Your task to perform on an android device: open app "Flipkart Online Shopping App" (install if not already installed) and go to login screen Image 0: 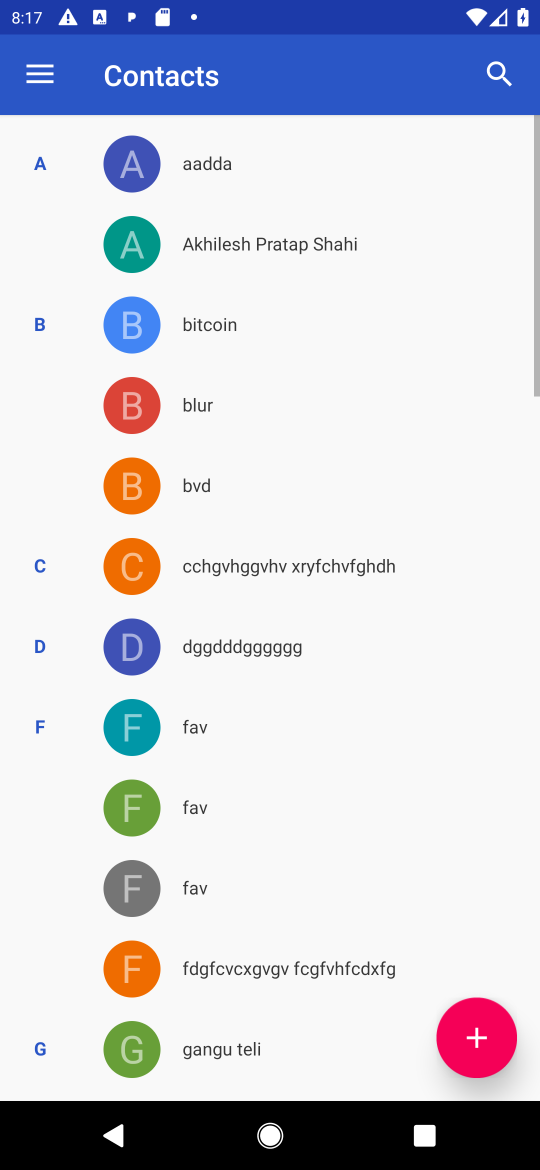
Step 0: press home button
Your task to perform on an android device: open app "Flipkart Online Shopping App" (install if not already installed) and go to login screen Image 1: 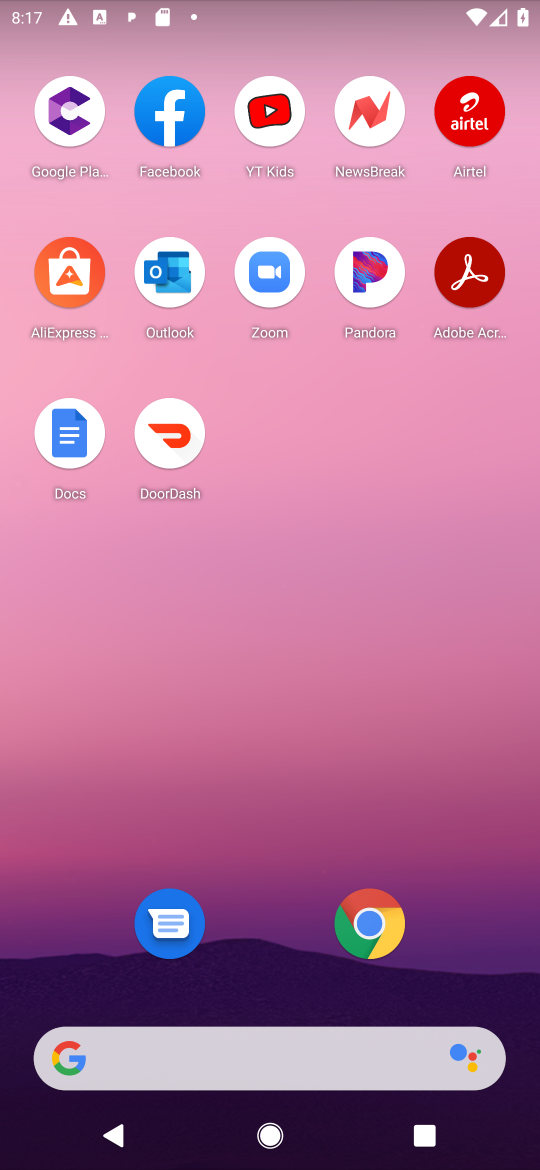
Step 1: press home button
Your task to perform on an android device: open app "Flipkart Online Shopping App" (install if not already installed) and go to login screen Image 2: 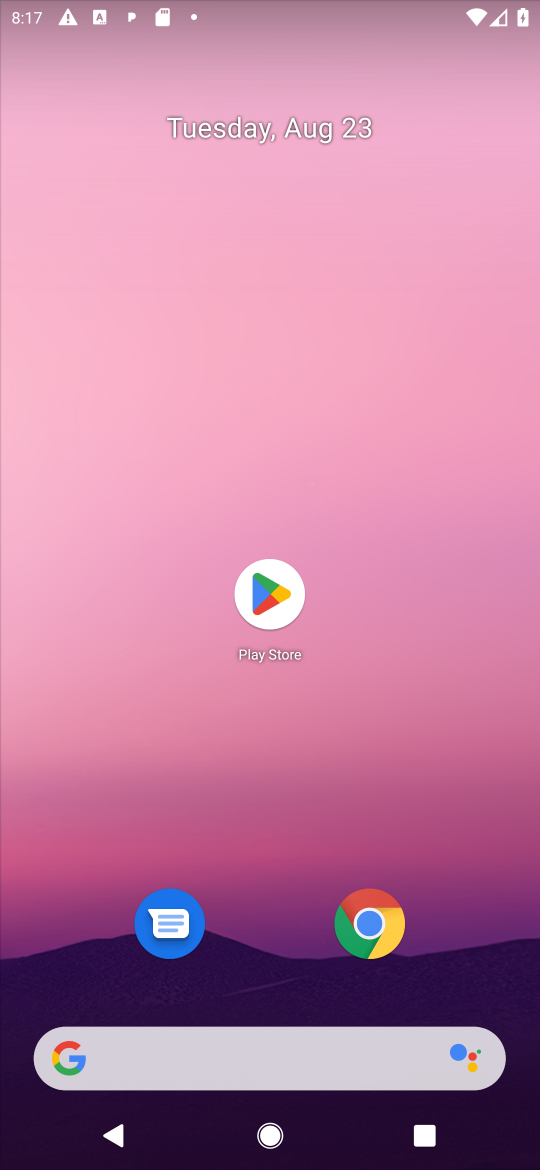
Step 2: click (267, 575)
Your task to perform on an android device: open app "Flipkart Online Shopping App" (install if not already installed) and go to login screen Image 3: 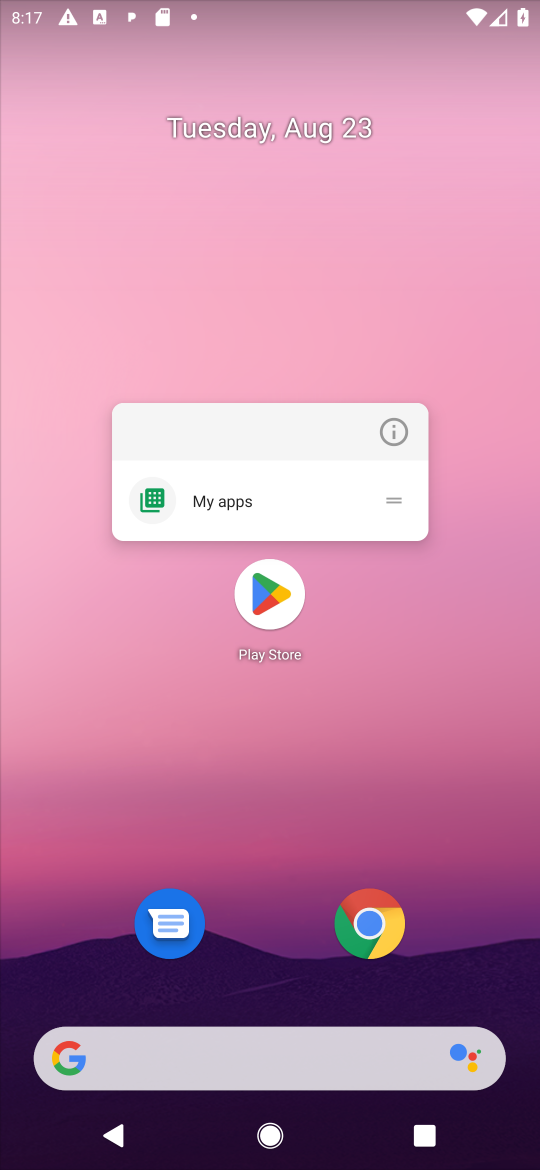
Step 3: click (267, 592)
Your task to perform on an android device: open app "Flipkart Online Shopping App" (install if not already installed) and go to login screen Image 4: 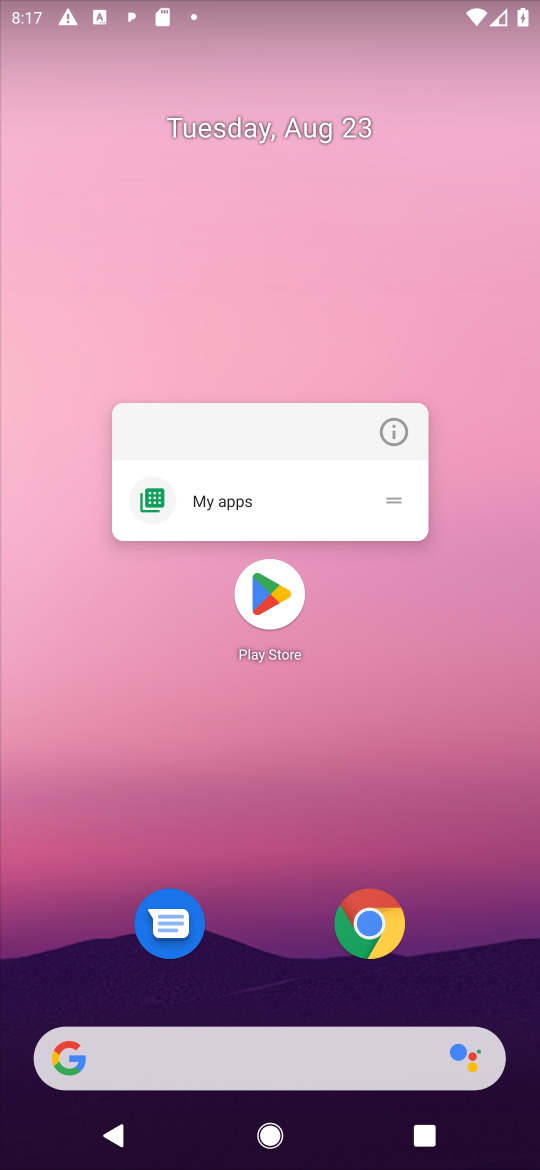
Step 4: click (267, 601)
Your task to perform on an android device: open app "Flipkart Online Shopping App" (install if not already installed) and go to login screen Image 5: 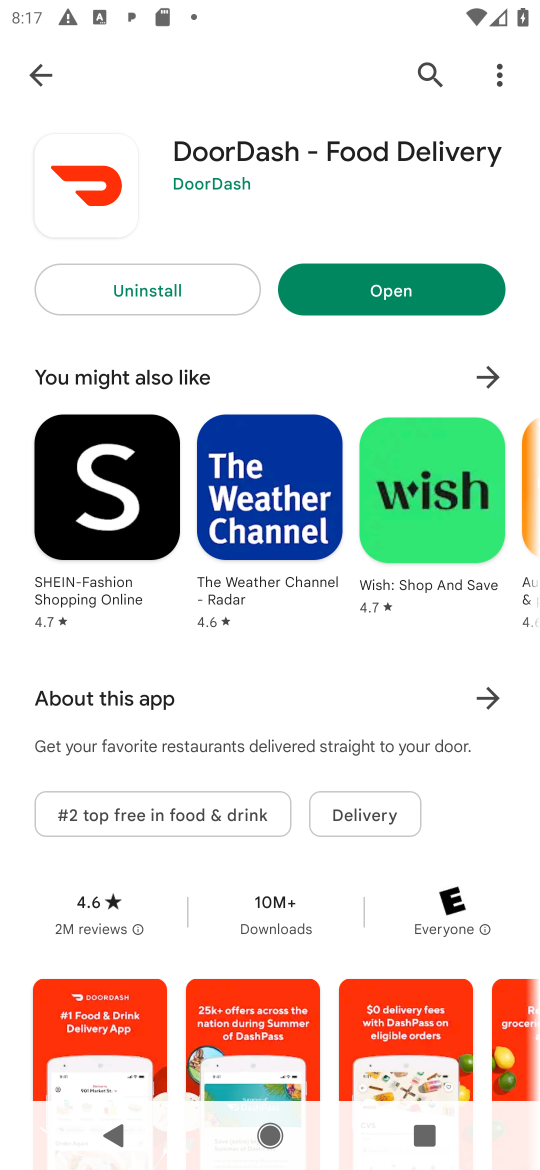
Step 5: click (435, 47)
Your task to perform on an android device: open app "Flipkart Online Shopping App" (install if not already installed) and go to login screen Image 6: 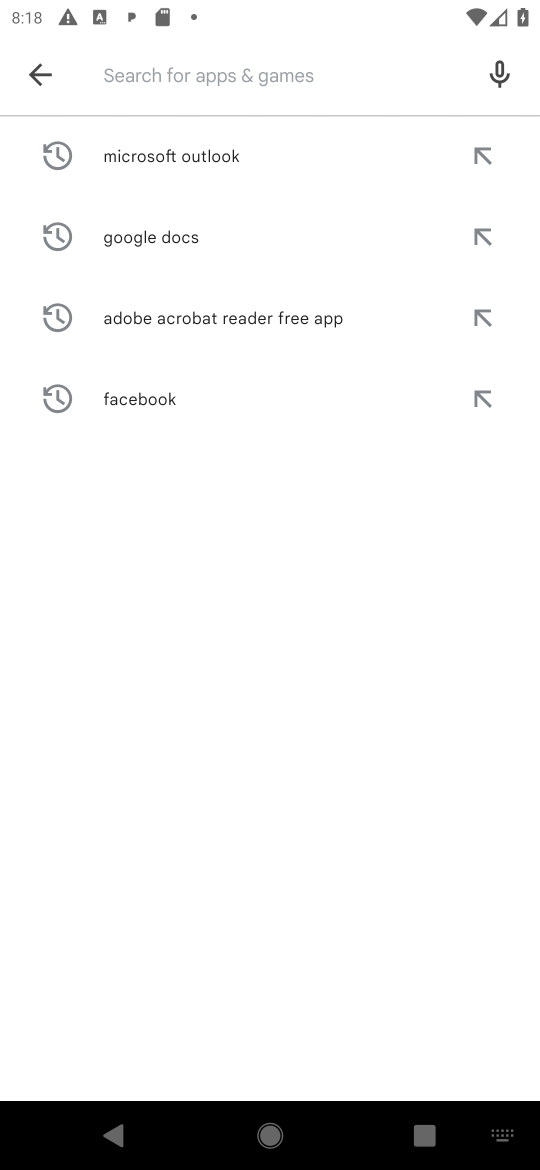
Step 6: type "Flipkart Online Shopping App"
Your task to perform on an android device: open app "Flipkart Online Shopping App" (install if not already installed) and go to login screen Image 7: 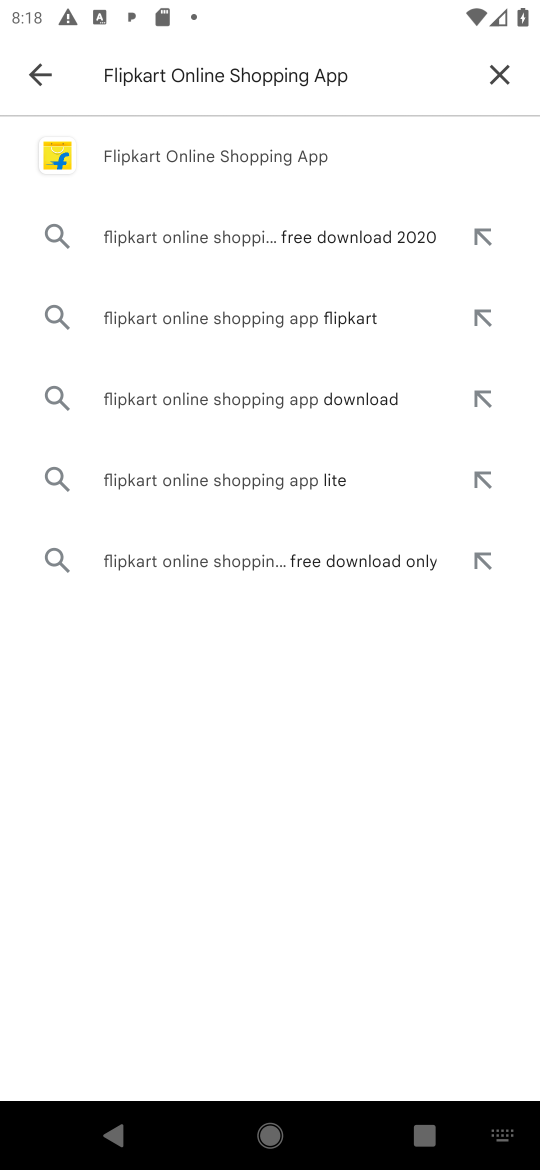
Step 7: click (203, 156)
Your task to perform on an android device: open app "Flipkart Online Shopping App" (install if not already installed) and go to login screen Image 8: 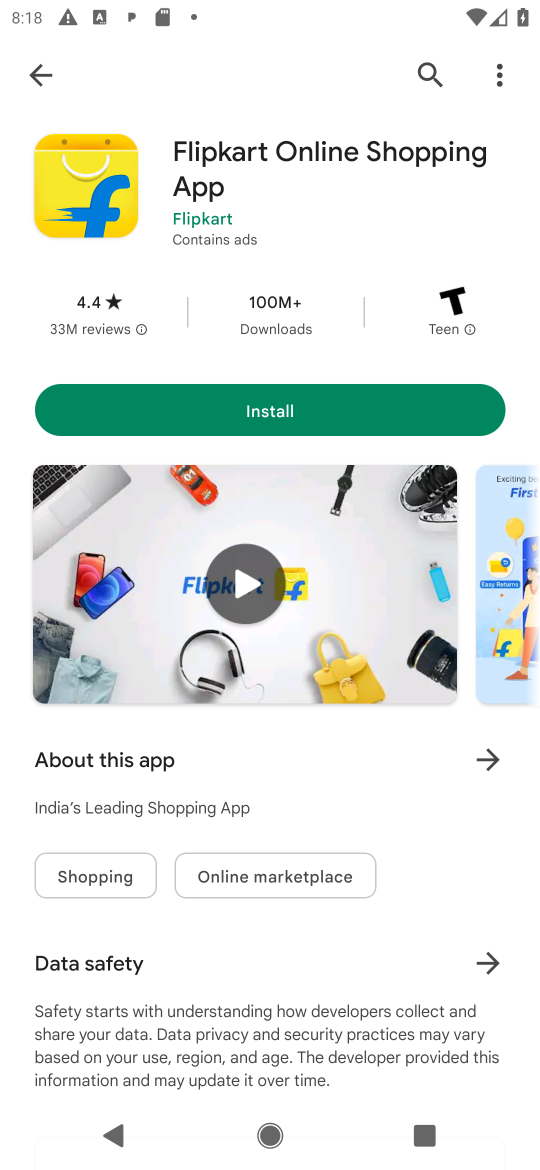
Step 8: click (308, 406)
Your task to perform on an android device: open app "Flipkart Online Shopping App" (install if not already installed) and go to login screen Image 9: 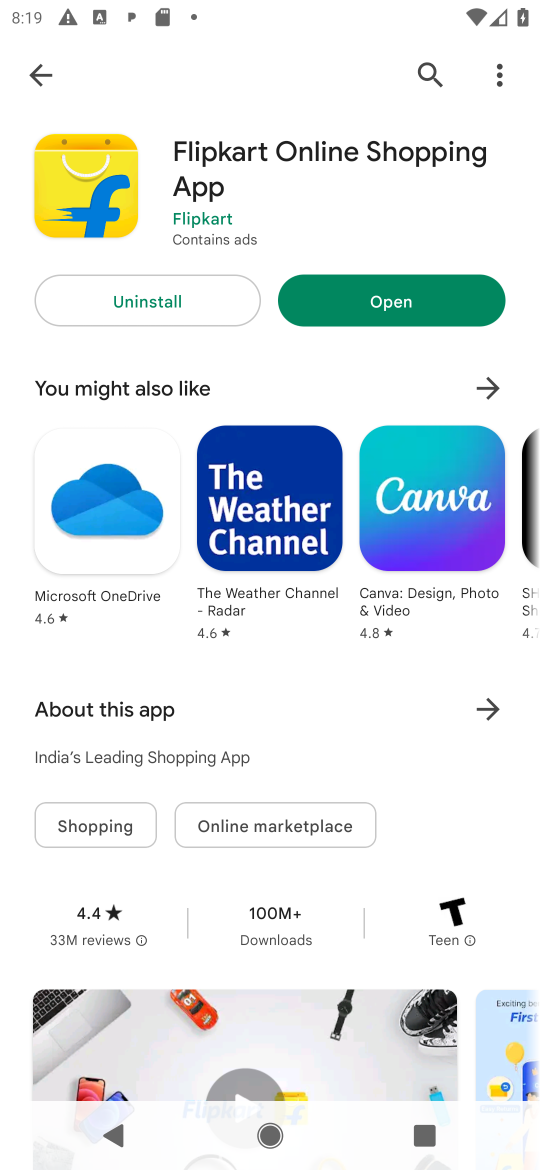
Step 9: click (390, 299)
Your task to perform on an android device: open app "Flipkart Online Shopping App" (install if not already installed) and go to login screen Image 10: 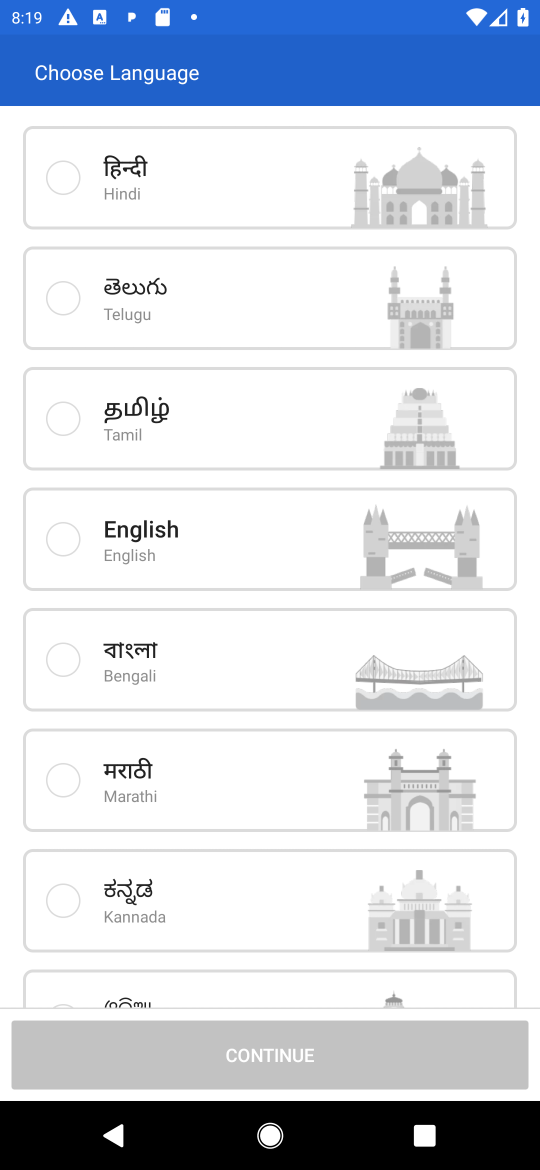
Step 10: click (61, 539)
Your task to perform on an android device: open app "Flipkart Online Shopping App" (install if not already installed) and go to login screen Image 11: 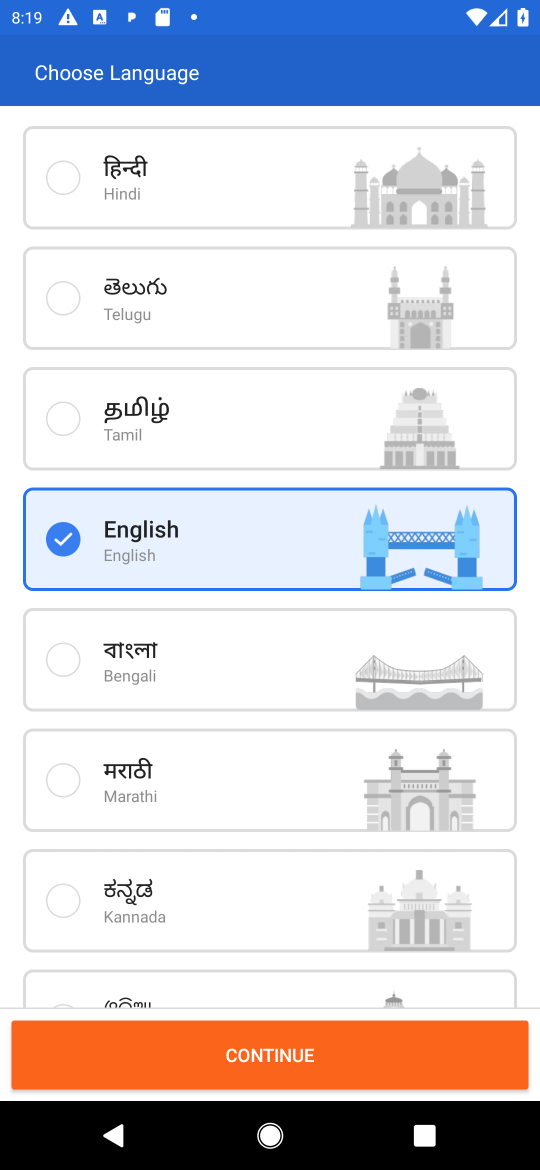
Step 11: click (321, 1048)
Your task to perform on an android device: open app "Flipkart Online Shopping App" (install if not already installed) and go to login screen Image 12: 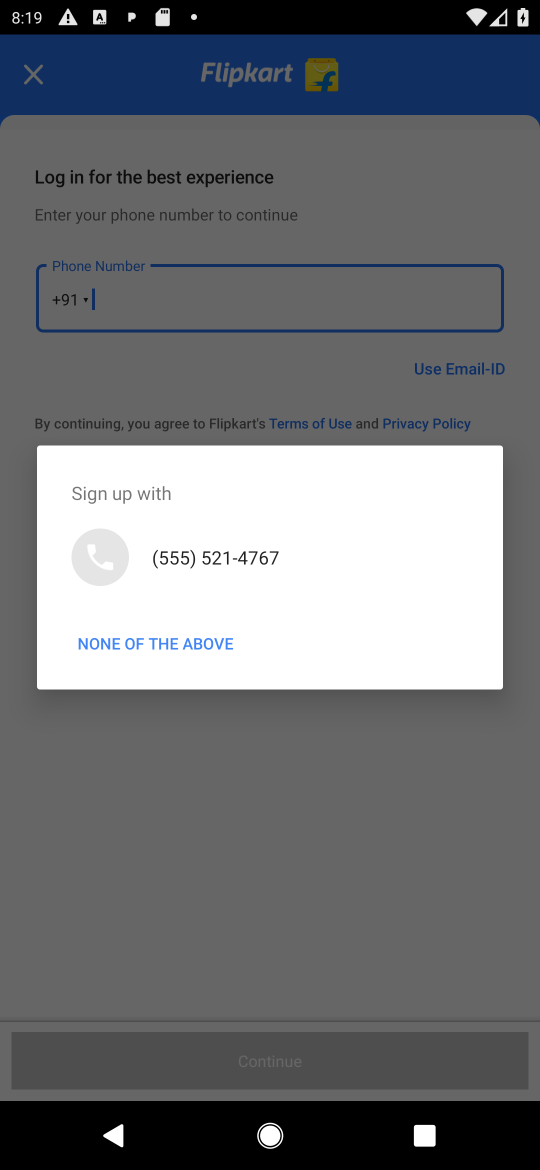
Step 12: task complete